Your task to perform on an android device: Open Chrome and go to the settings page Image 0: 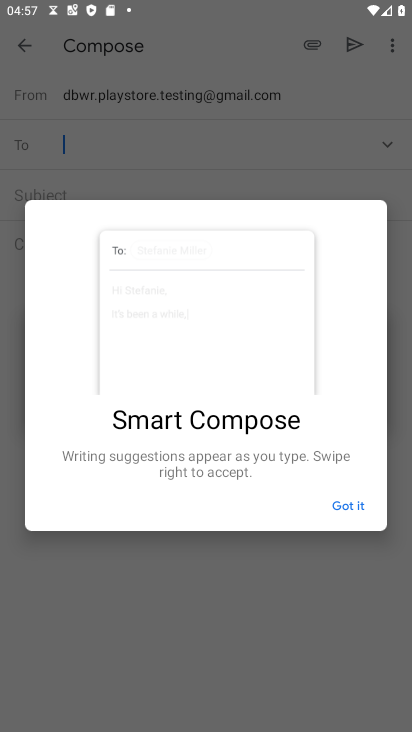
Step 0: press home button
Your task to perform on an android device: Open Chrome and go to the settings page Image 1: 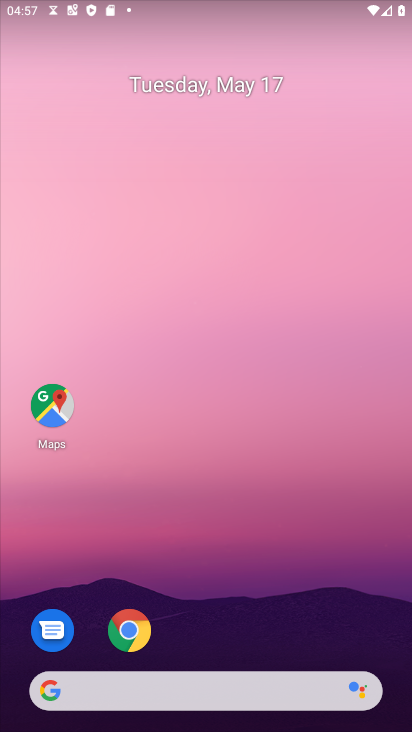
Step 1: click (130, 628)
Your task to perform on an android device: Open Chrome and go to the settings page Image 2: 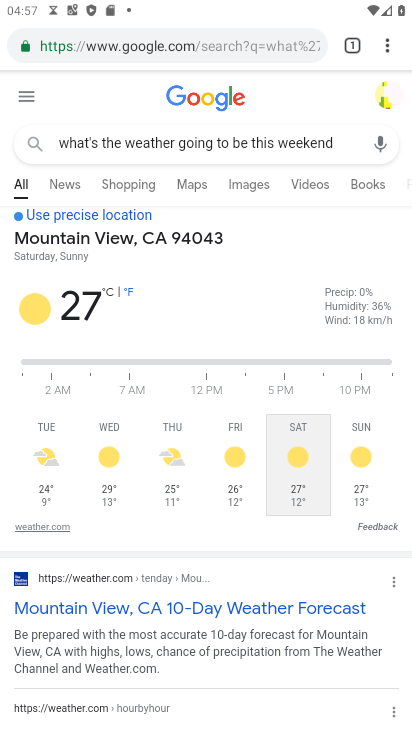
Step 2: task complete